Your task to perform on an android device: Go to ESPN.com Image 0: 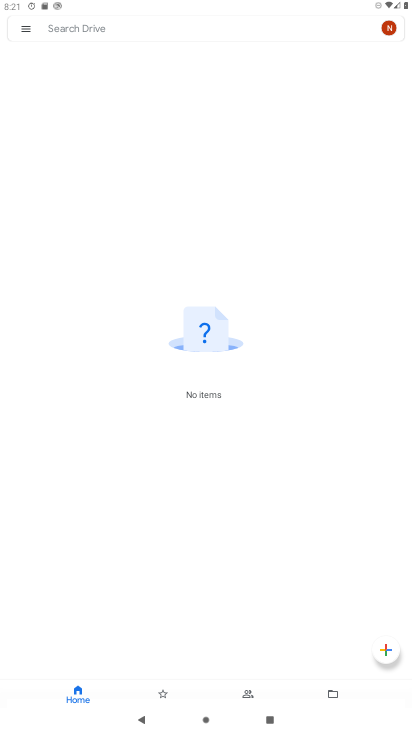
Step 0: press home button
Your task to perform on an android device: Go to ESPN.com Image 1: 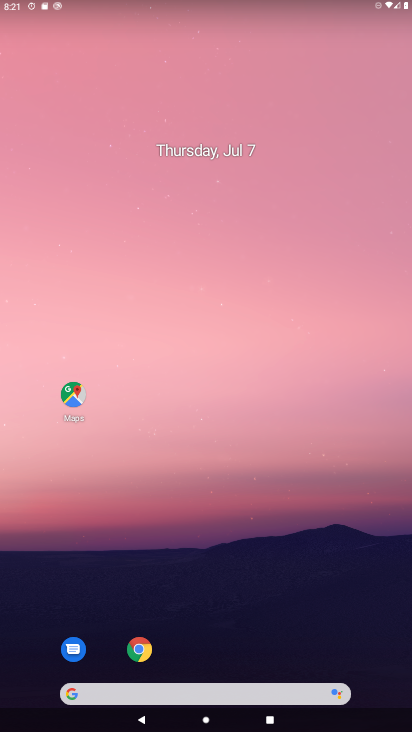
Step 1: click (138, 647)
Your task to perform on an android device: Go to ESPN.com Image 2: 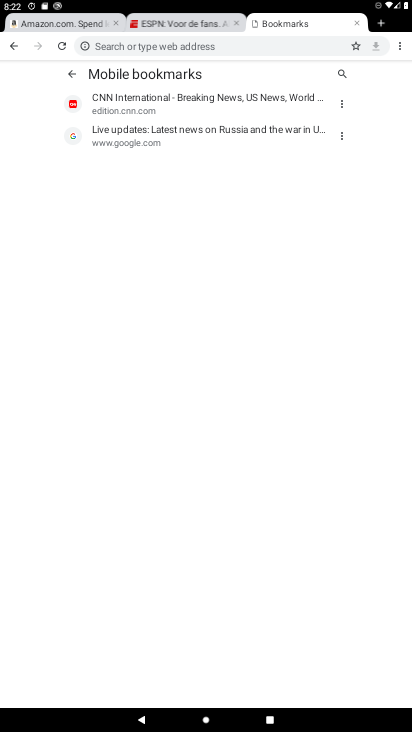
Step 2: click (355, 21)
Your task to perform on an android device: Go to ESPN.com Image 3: 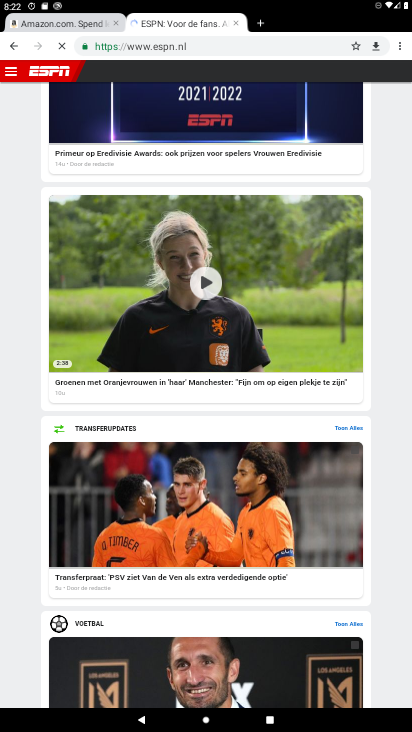
Step 3: task complete